Your task to perform on an android device: make emails show in primary in the gmail app Image 0: 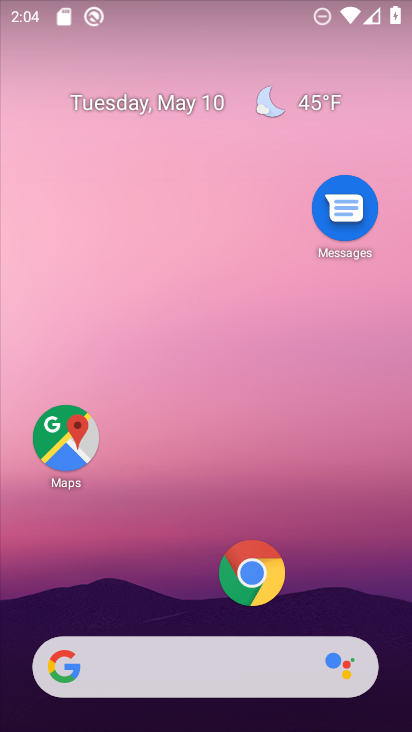
Step 0: drag from (162, 589) to (240, 166)
Your task to perform on an android device: make emails show in primary in the gmail app Image 1: 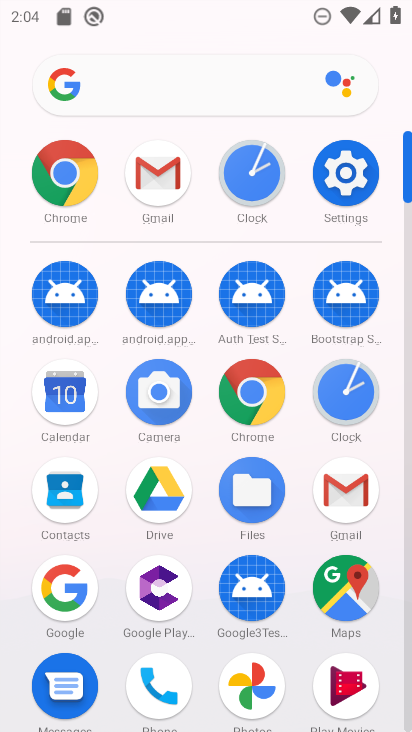
Step 1: click (329, 475)
Your task to perform on an android device: make emails show in primary in the gmail app Image 2: 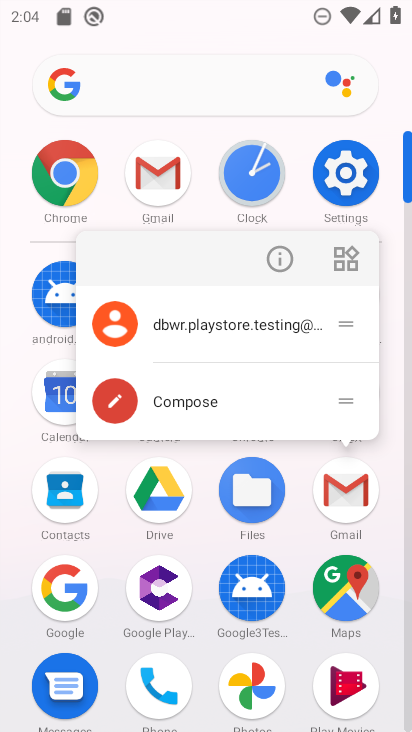
Step 2: click (280, 269)
Your task to perform on an android device: make emails show in primary in the gmail app Image 3: 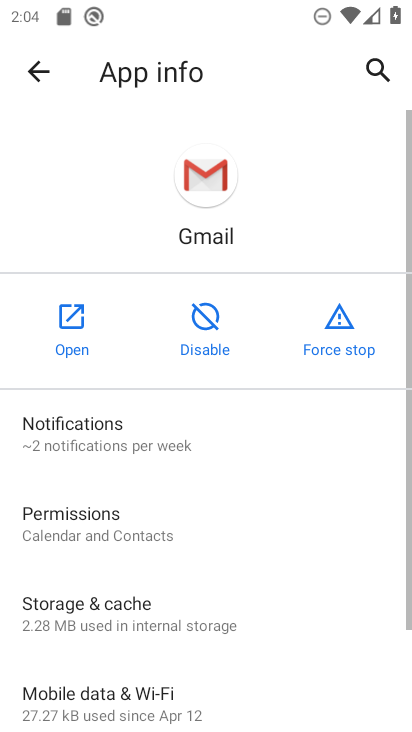
Step 3: click (62, 325)
Your task to perform on an android device: make emails show in primary in the gmail app Image 4: 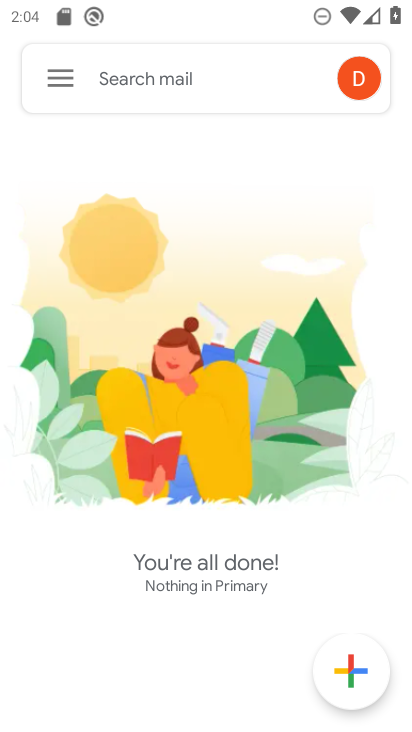
Step 4: click (61, 73)
Your task to perform on an android device: make emails show in primary in the gmail app Image 5: 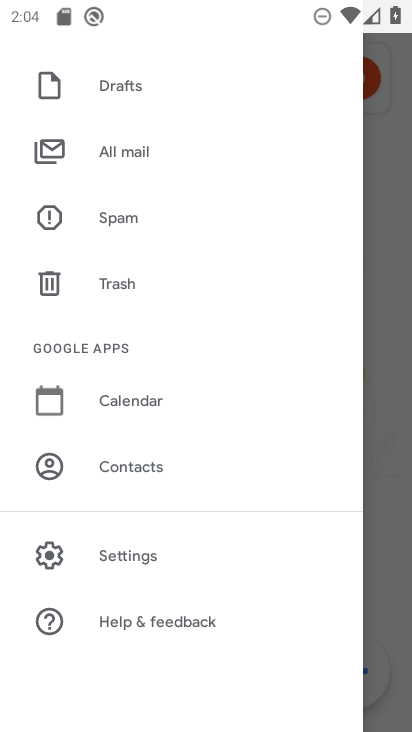
Step 5: drag from (145, 161) to (131, 654)
Your task to perform on an android device: make emails show in primary in the gmail app Image 6: 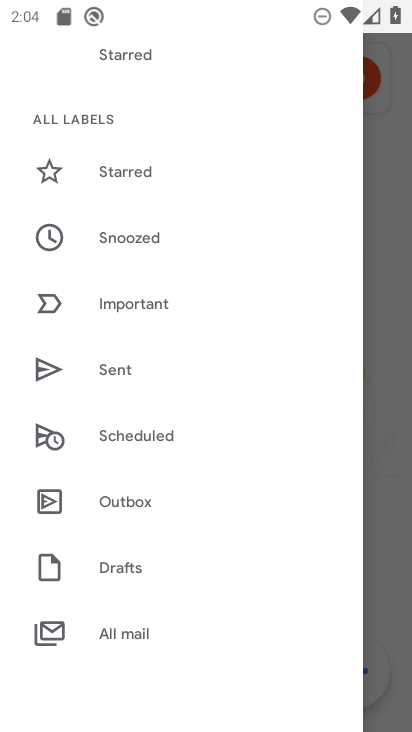
Step 6: drag from (153, 177) to (108, 627)
Your task to perform on an android device: make emails show in primary in the gmail app Image 7: 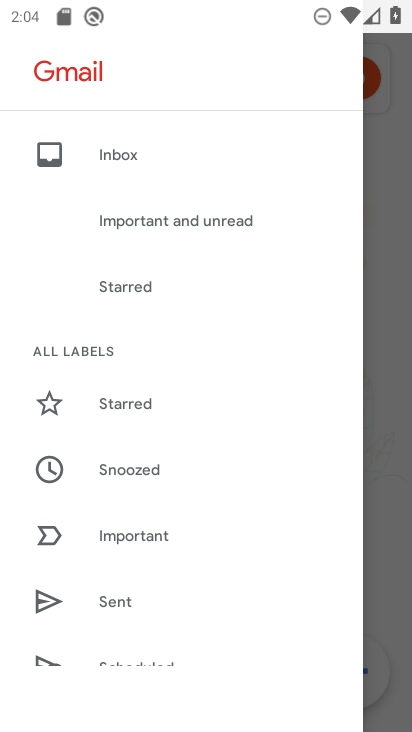
Step 7: drag from (149, 158) to (172, 514)
Your task to perform on an android device: make emails show in primary in the gmail app Image 8: 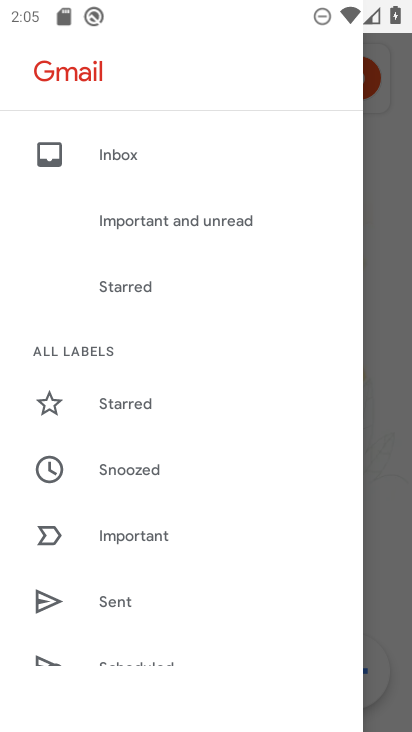
Step 8: click (155, 164)
Your task to perform on an android device: make emails show in primary in the gmail app Image 9: 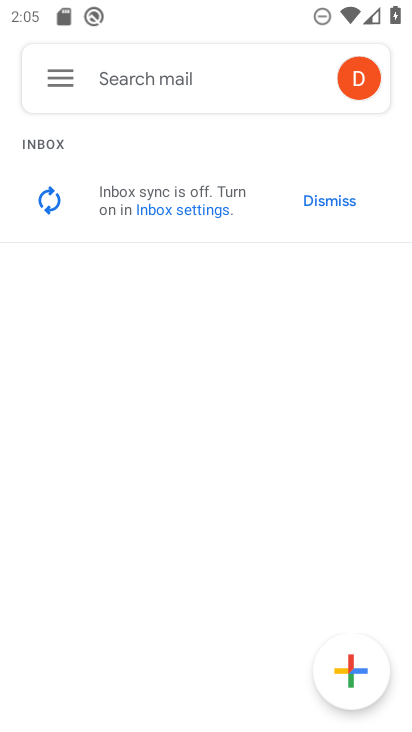
Step 9: click (59, 72)
Your task to perform on an android device: make emails show in primary in the gmail app Image 10: 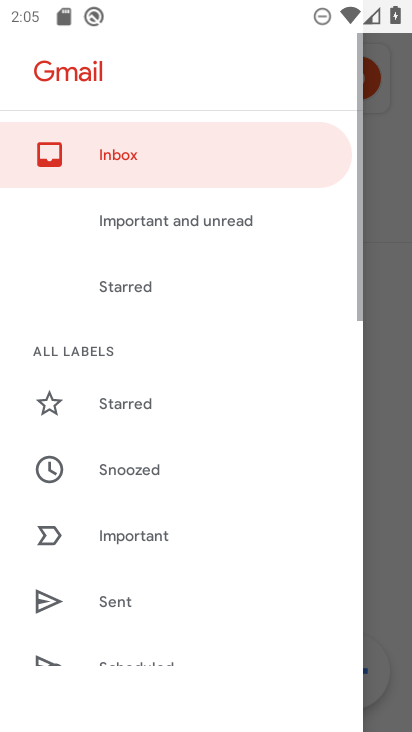
Step 10: click (121, 166)
Your task to perform on an android device: make emails show in primary in the gmail app Image 11: 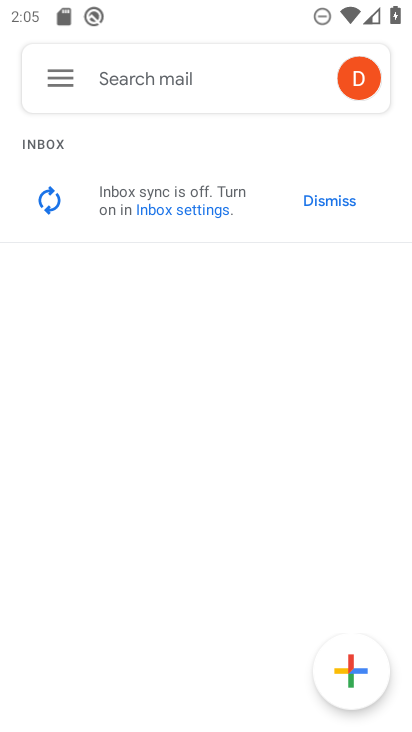
Step 11: click (53, 81)
Your task to perform on an android device: make emails show in primary in the gmail app Image 12: 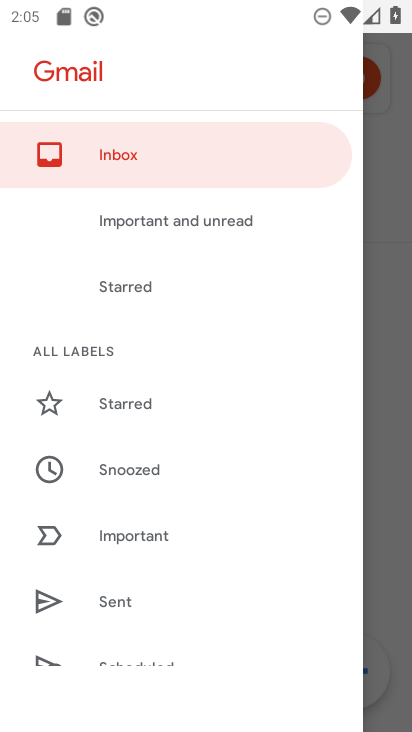
Step 12: drag from (202, 637) to (185, 168)
Your task to perform on an android device: make emails show in primary in the gmail app Image 13: 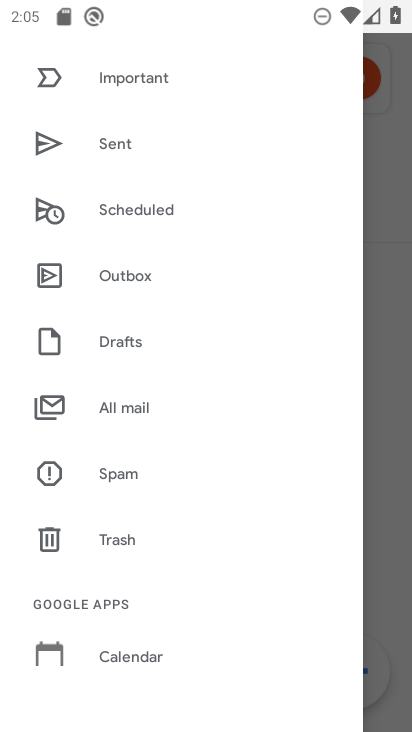
Step 13: drag from (123, 642) to (177, 262)
Your task to perform on an android device: make emails show in primary in the gmail app Image 14: 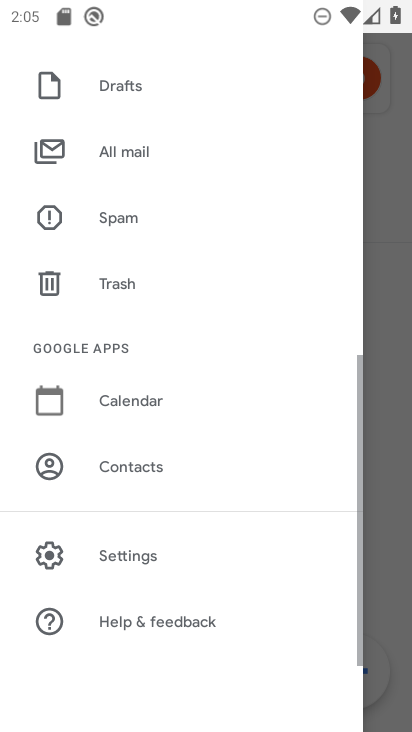
Step 14: drag from (109, 582) to (143, 299)
Your task to perform on an android device: make emails show in primary in the gmail app Image 15: 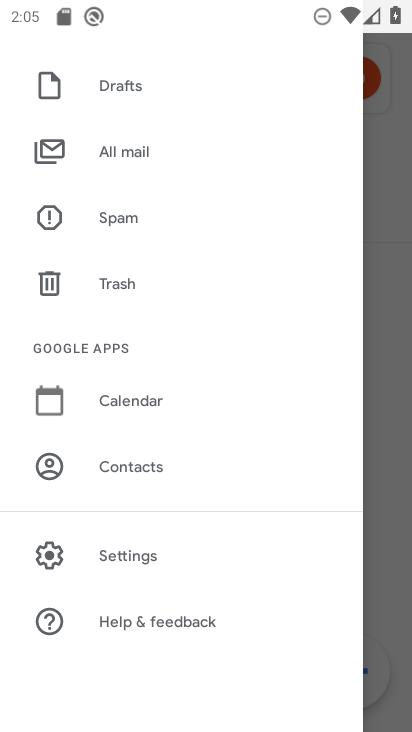
Step 15: drag from (167, 197) to (191, 672)
Your task to perform on an android device: make emails show in primary in the gmail app Image 16: 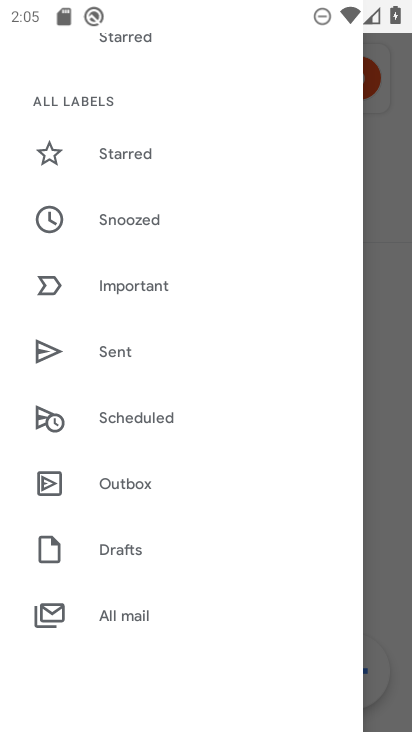
Step 16: drag from (216, 353) to (262, 721)
Your task to perform on an android device: make emails show in primary in the gmail app Image 17: 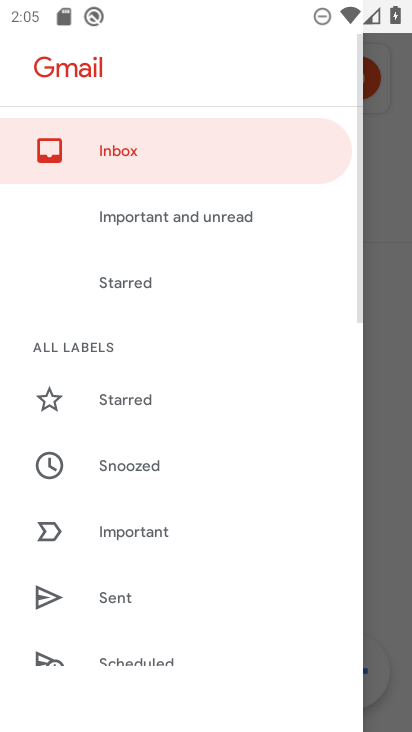
Step 17: click (139, 167)
Your task to perform on an android device: make emails show in primary in the gmail app Image 18: 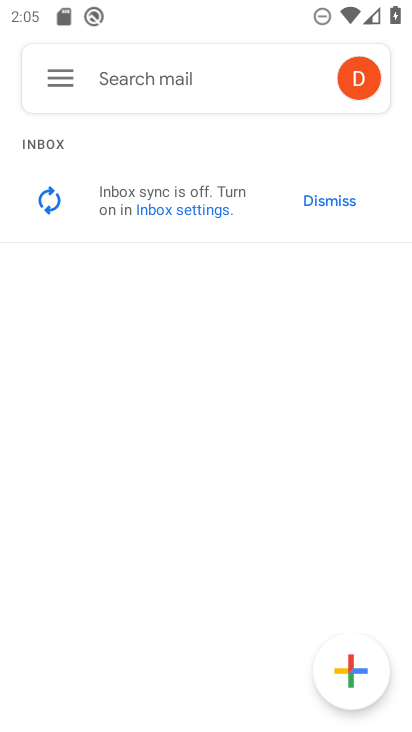
Step 18: task complete